Your task to perform on an android device: turn off airplane mode Image 0: 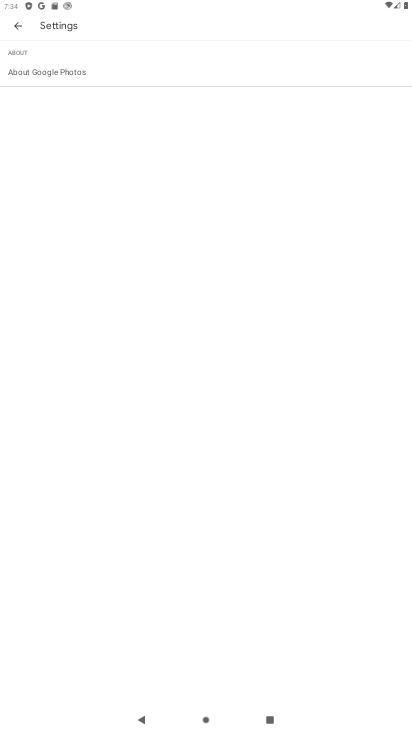
Step 0: press home button
Your task to perform on an android device: turn off airplane mode Image 1: 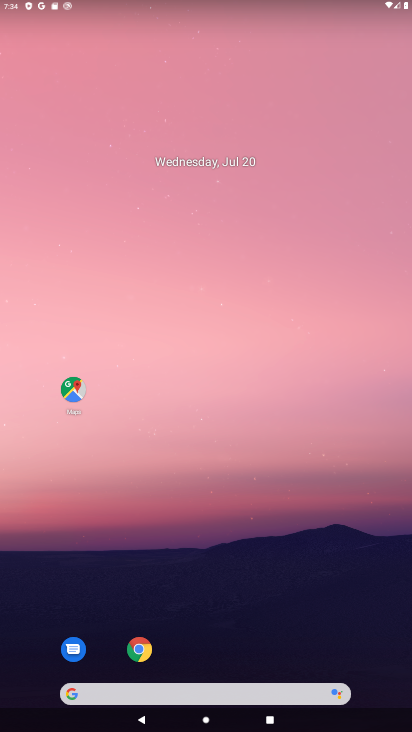
Step 1: drag from (225, 673) to (274, 33)
Your task to perform on an android device: turn off airplane mode Image 2: 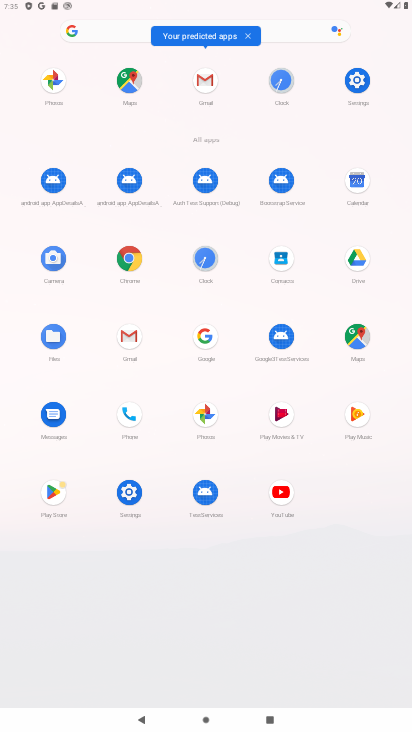
Step 2: click (128, 492)
Your task to perform on an android device: turn off airplane mode Image 3: 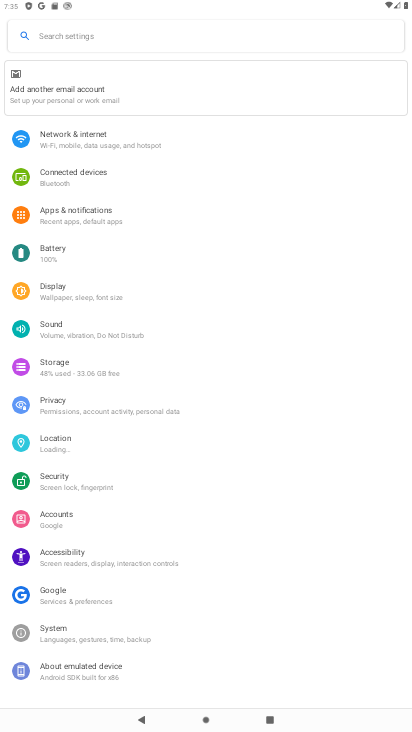
Step 3: click (93, 135)
Your task to perform on an android device: turn off airplane mode Image 4: 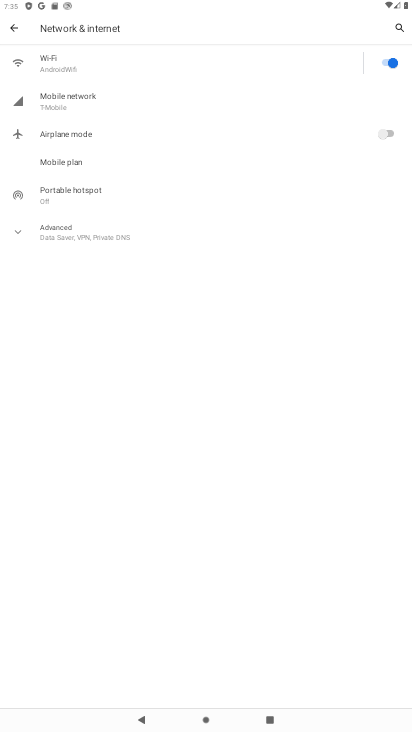
Step 4: task complete